Your task to perform on an android device: Go to Wikipedia Image 0: 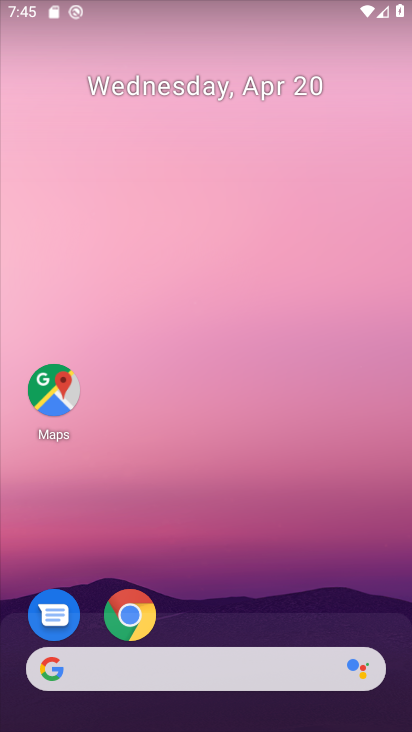
Step 0: click (142, 607)
Your task to perform on an android device: Go to Wikipedia Image 1: 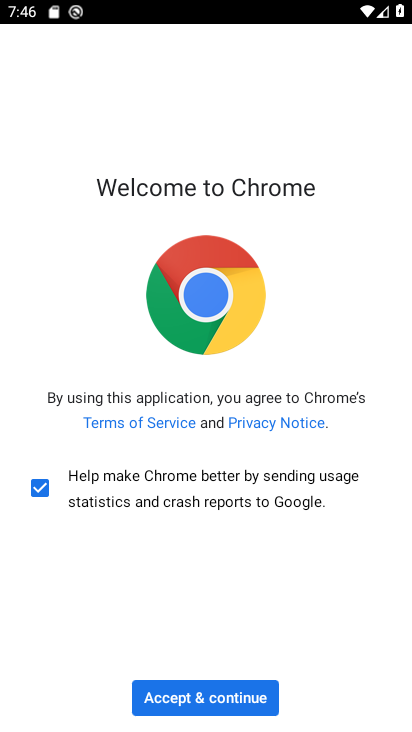
Step 1: click (190, 693)
Your task to perform on an android device: Go to Wikipedia Image 2: 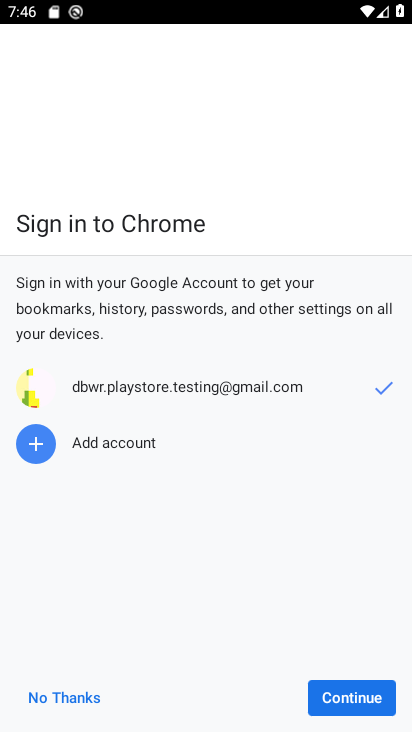
Step 2: click (374, 698)
Your task to perform on an android device: Go to Wikipedia Image 3: 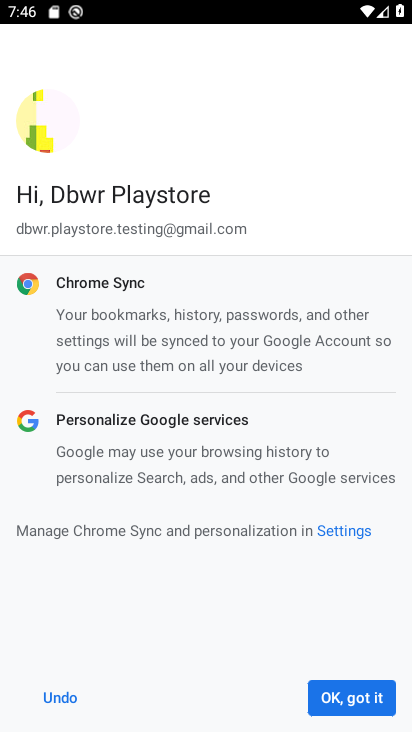
Step 3: click (374, 698)
Your task to perform on an android device: Go to Wikipedia Image 4: 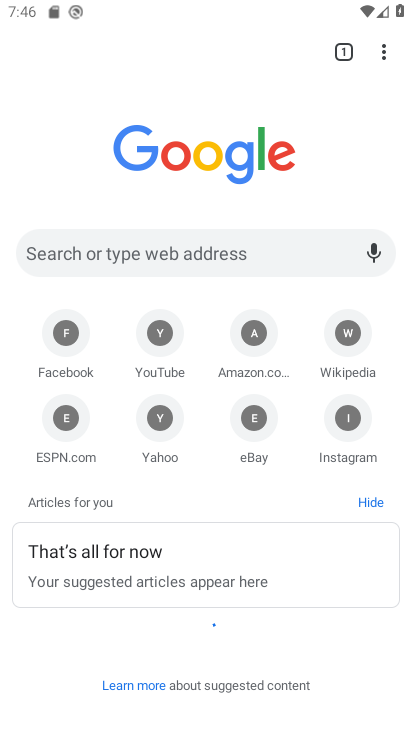
Step 4: click (345, 335)
Your task to perform on an android device: Go to Wikipedia Image 5: 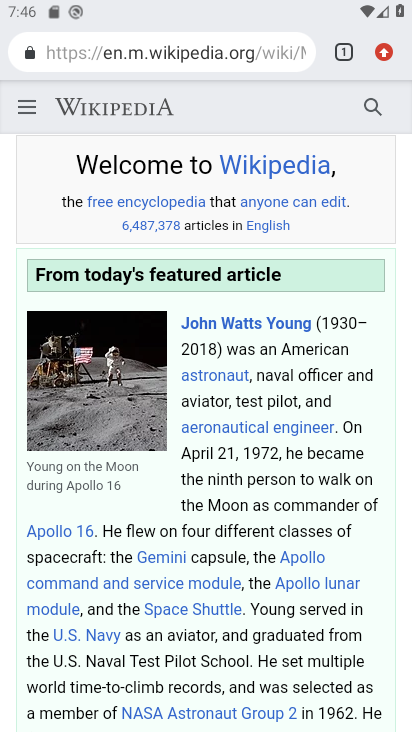
Step 5: task complete